Your task to perform on an android device: move a message to another label in the gmail app Image 0: 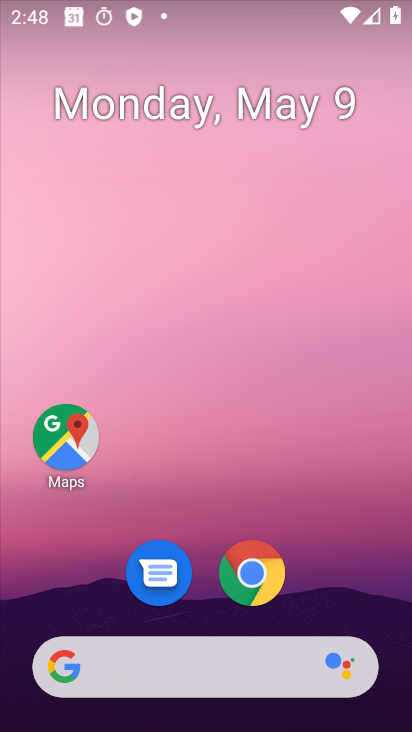
Step 0: drag from (315, 538) to (180, 75)
Your task to perform on an android device: move a message to another label in the gmail app Image 1: 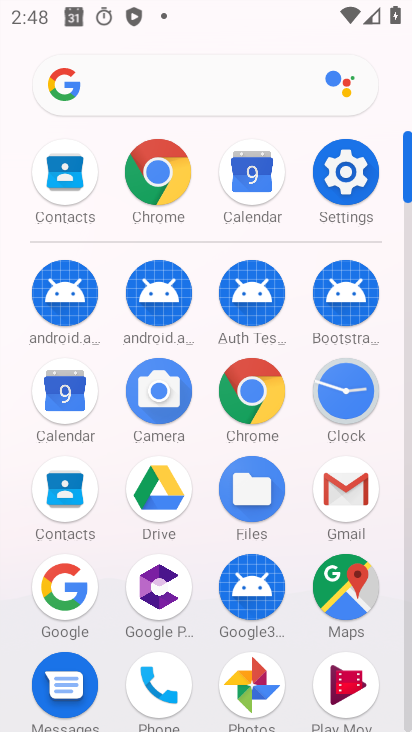
Step 1: click (330, 472)
Your task to perform on an android device: move a message to another label in the gmail app Image 2: 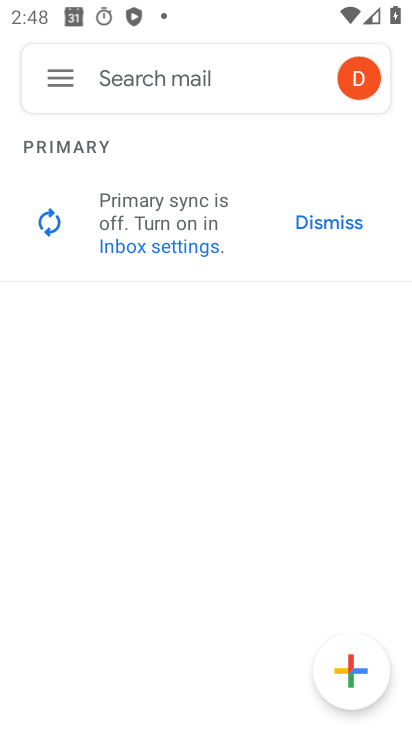
Step 2: click (189, 230)
Your task to perform on an android device: move a message to another label in the gmail app Image 3: 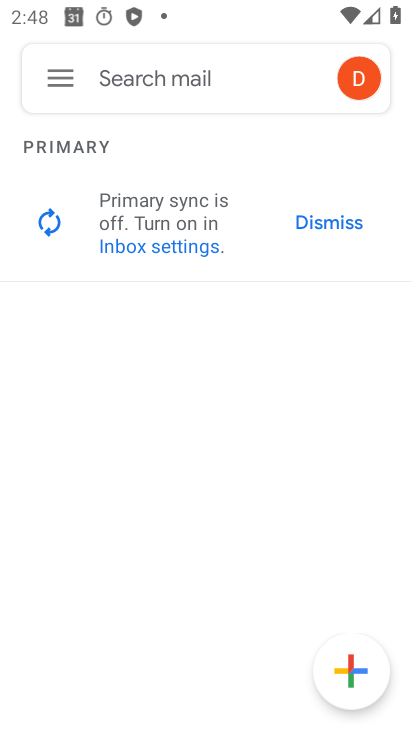
Step 3: click (189, 230)
Your task to perform on an android device: move a message to another label in the gmail app Image 4: 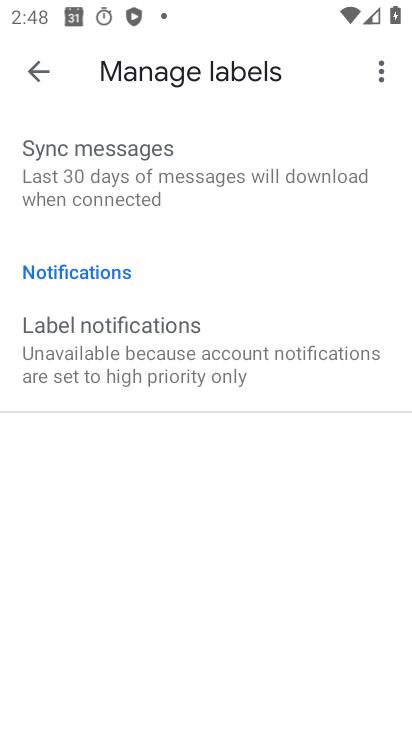
Step 4: click (37, 70)
Your task to perform on an android device: move a message to another label in the gmail app Image 5: 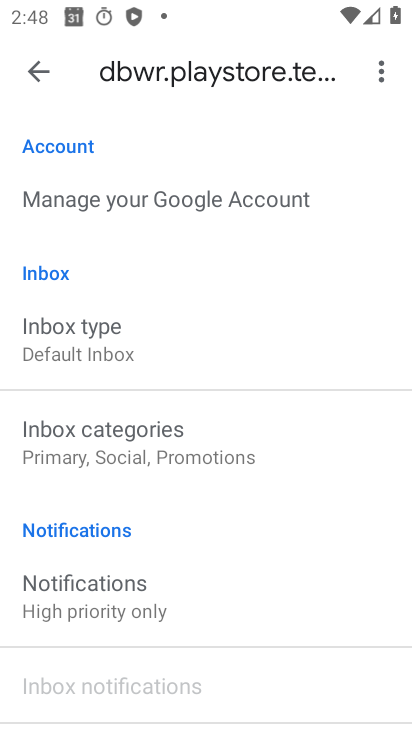
Step 5: click (40, 74)
Your task to perform on an android device: move a message to another label in the gmail app Image 6: 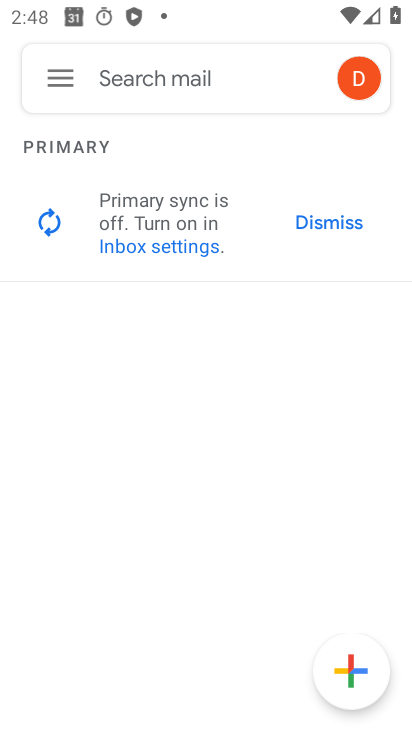
Step 6: drag from (201, 203) to (261, 218)
Your task to perform on an android device: move a message to another label in the gmail app Image 7: 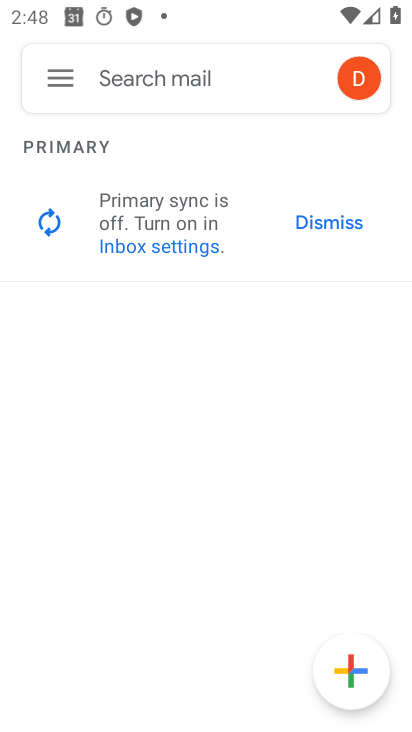
Step 7: click (172, 252)
Your task to perform on an android device: move a message to another label in the gmail app Image 8: 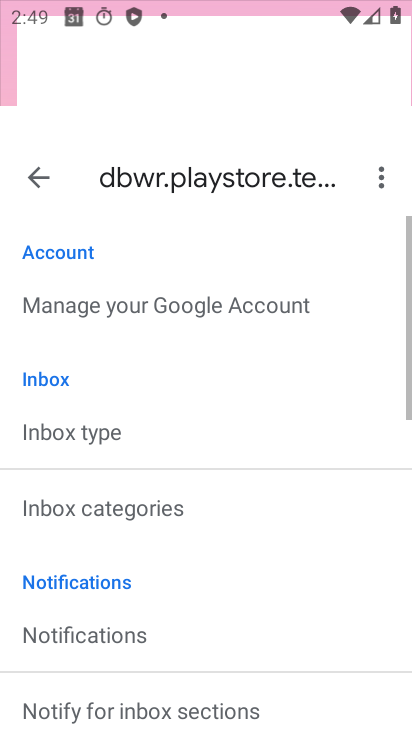
Step 8: click (163, 227)
Your task to perform on an android device: move a message to another label in the gmail app Image 9: 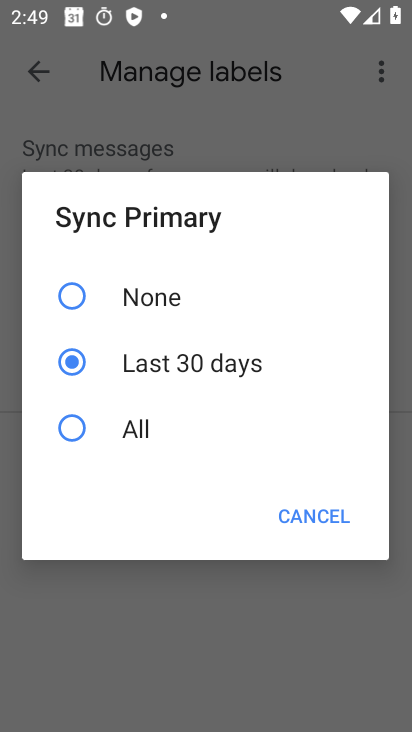
Step 9: click (165, 593)
Your task to perform on an android device: move a message to another label in the gmail app Image 10: 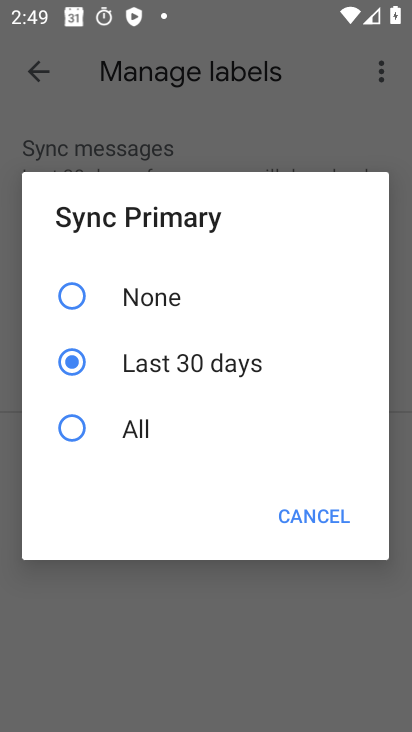
Step 10: click (326, 511)
Your task to perform on an android device: move a message to another label in the gmail app Image 11: 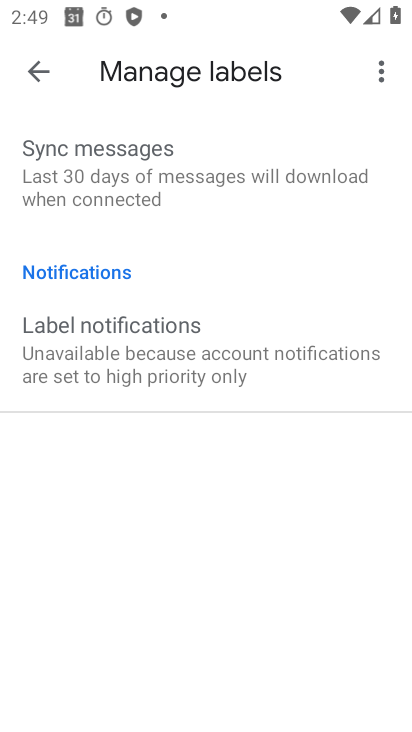
Step 11: click (114, 189)
Your task to perform on an android device: move a message to another label in the gmail app Image 12: 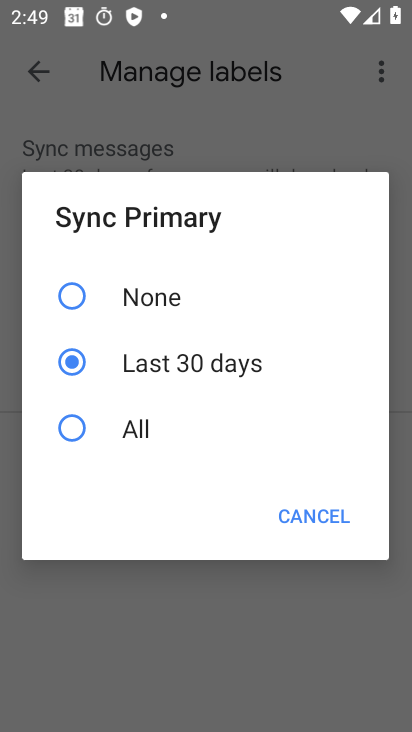
Step 12: click (62, 300)
Your task to perform on an android device: move a message to another label in the gmail app Image 13: 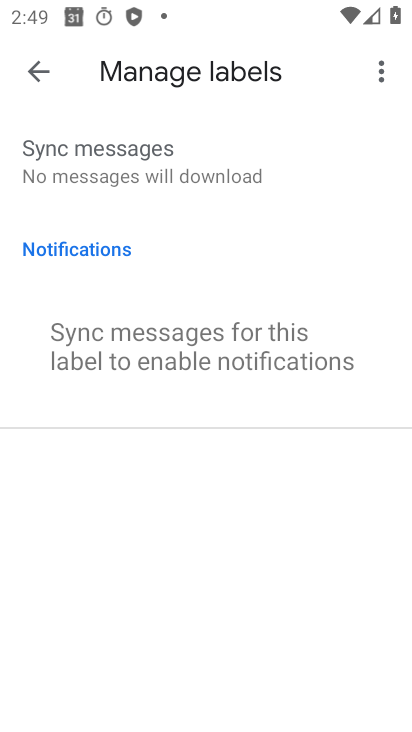
Step 13: task complete